Your task to perform on an android device: Open CNN.com Image 0: 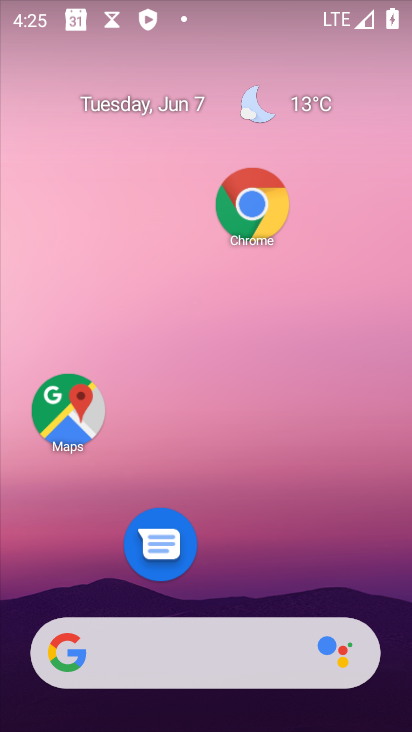
Step 0: click (251, 202)
Your task to perform on an android device: Open CNN.com Image 1: 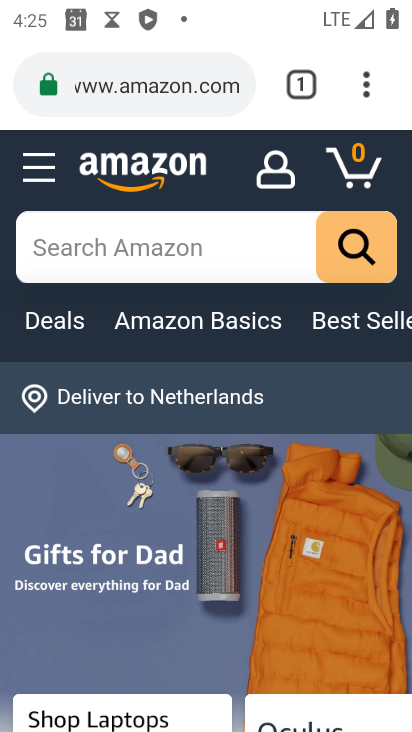
Step 1: click (296, 81)
Your task to perform on an android device: Open CNN.com Image 2: 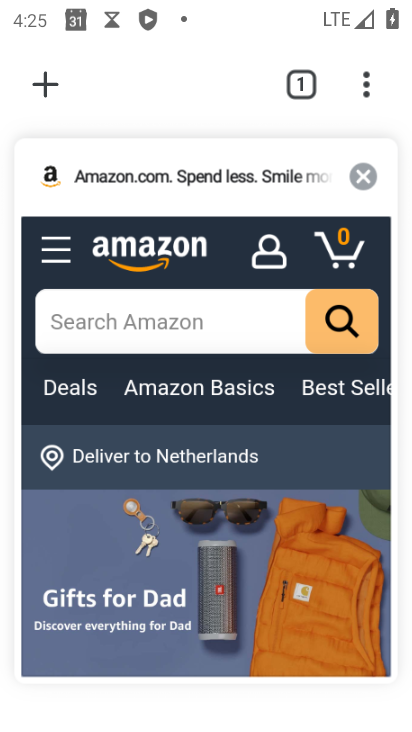
Step 2: click (365, 169)
Your task to perform on an android device: Open CNN.com Image 3: 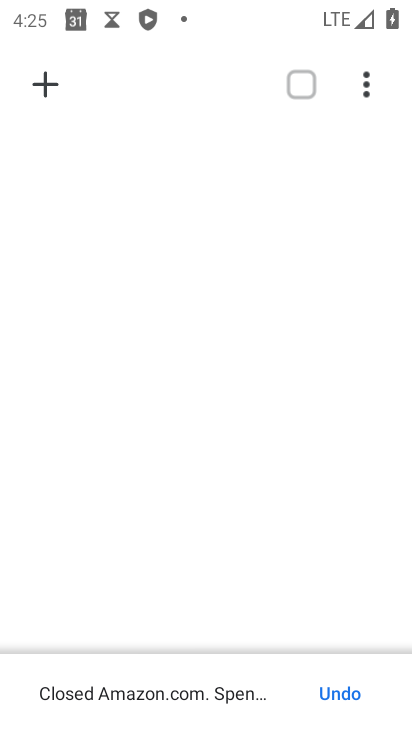
Step 3: click (55, 89)
Your task to perform on an android device: Open CNN.com Image 4: 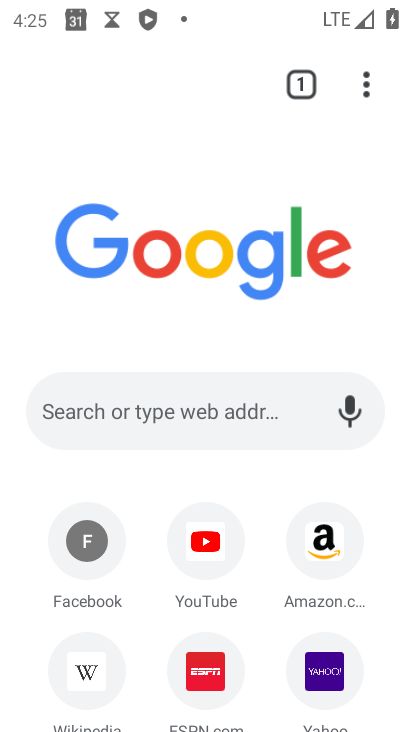
Step 4: drag from (266, 590) to (285, 351)
Your task to perform on an android device: Open CNN.com Image 5: 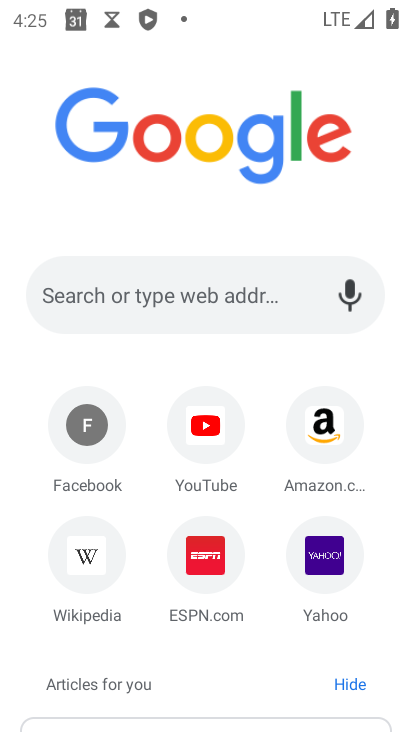
Step 5: drag from (296, 232) to (303, 181)
Your task to perform on an android device: Open CNN.com Image 6: 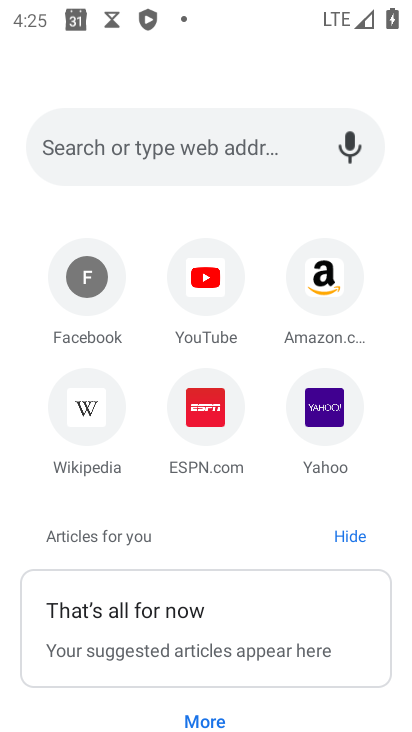
Step 6: click (172, 143)
Your task to perform on an android device: Open CNN.com Image 7: 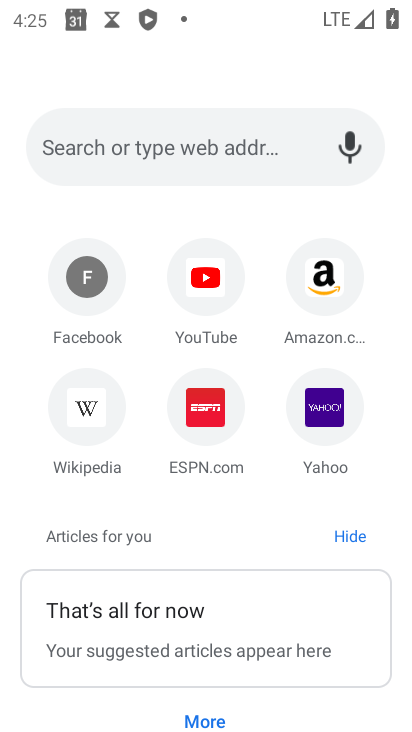
Step 7: type "cnn.com"
Your task to perform on an android device: Open CNN.com Image 8: 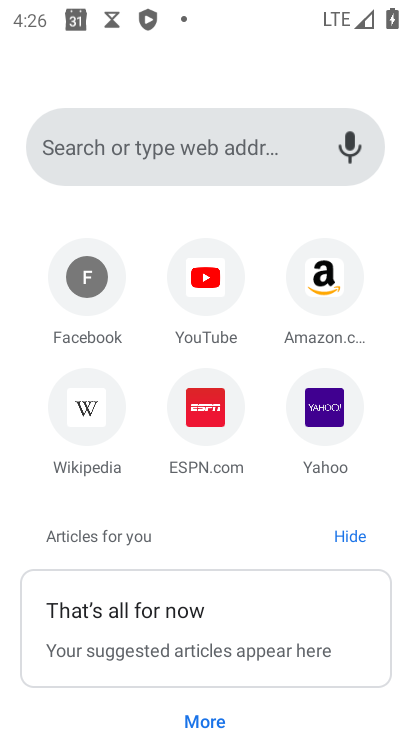
Step 8: click (104, 140)
Your task to perform on an android device: Open CNN.com Image 9: 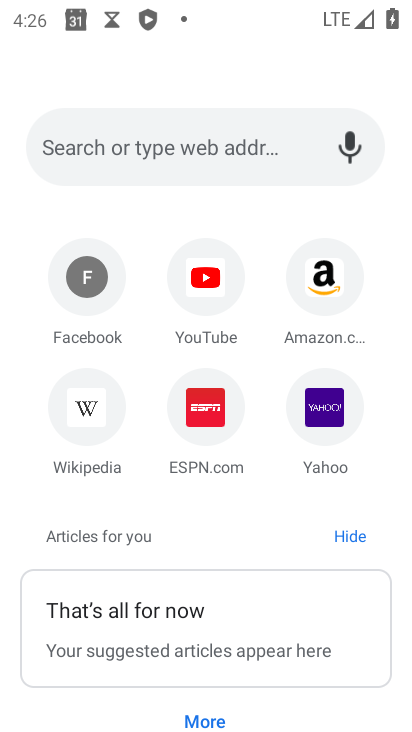
Step 9: click (112, 148)
Your task to perform on an android device: Open CNN.com Image 10: 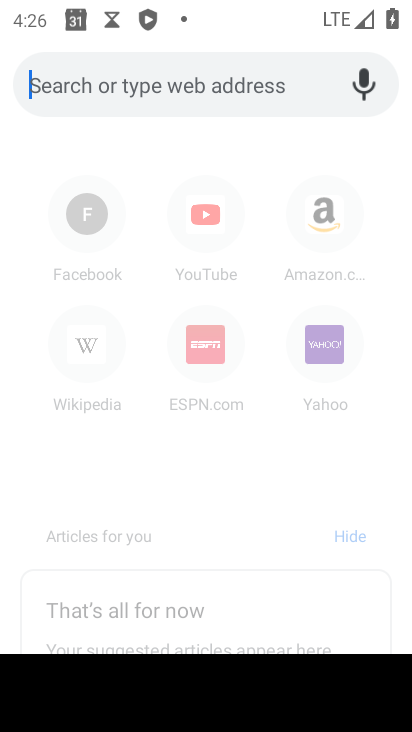
Step 10: type "cnn.com"
Your task to perform on an android device: Open CNN.com Image 11: 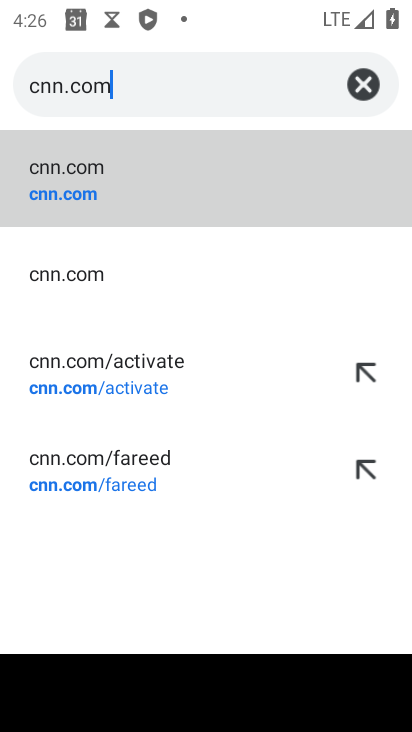
Step 11: click (132, 184)
Your task to perform on an android device: Open CNN.com Image 12: 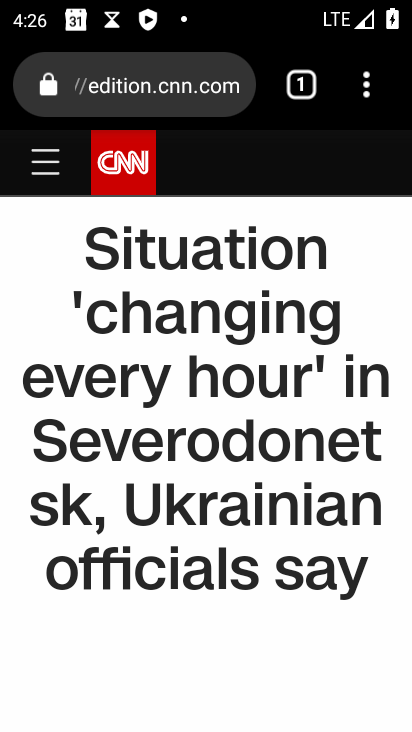
Step 12: drag from (195, 651) to (267, 263)
Your task to perform on an android device: Open CNN.com Image 13: 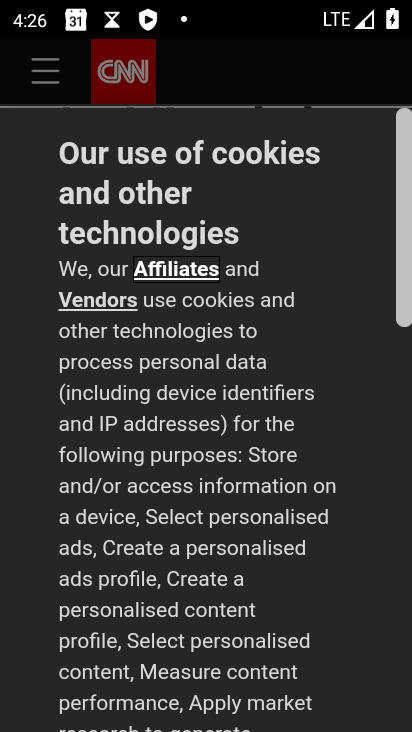
Step 13: drag from (255, 649) to (304, 355)
Your task to perform on an android device: Open CNN.com Image 14: 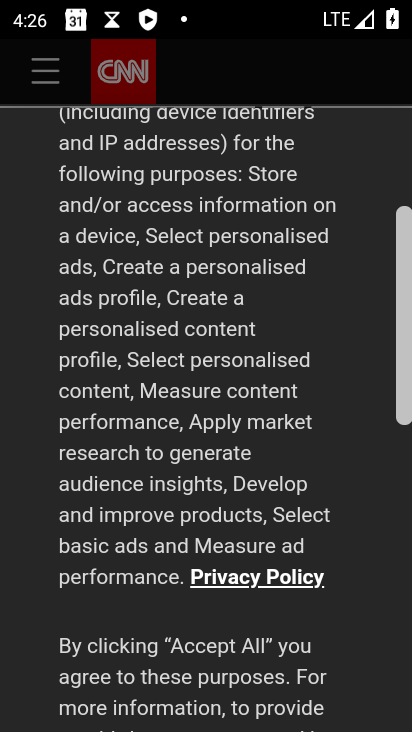
Step 14: drag from (219, 678) to (283, 338)
Your task to perform on an android device: Open CNN.com Image 15: 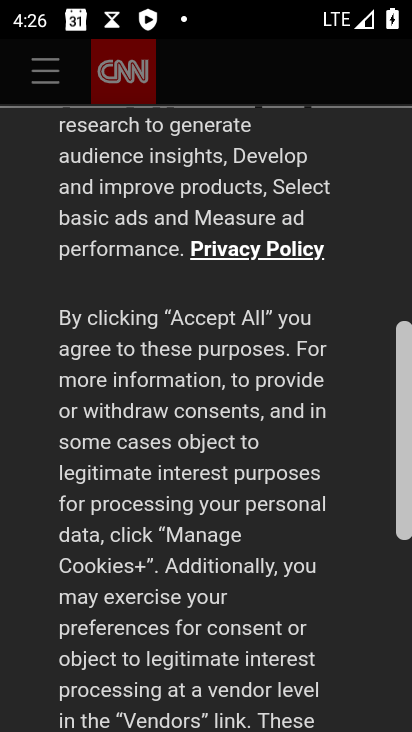
Step 15: drag from (215, 656) to (277, 301)
Your task to perform on an android device: Open CNN.com Image 16: 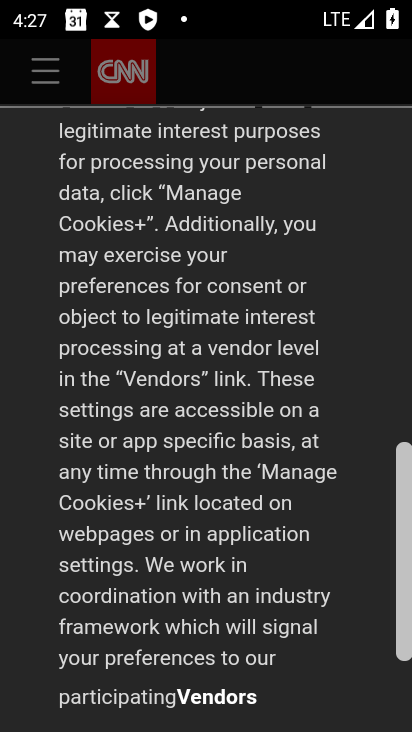
Step 16: drag from (187, 629) to (227, 266)
Your task to perform on an android device: Open CNN.com Image 17: 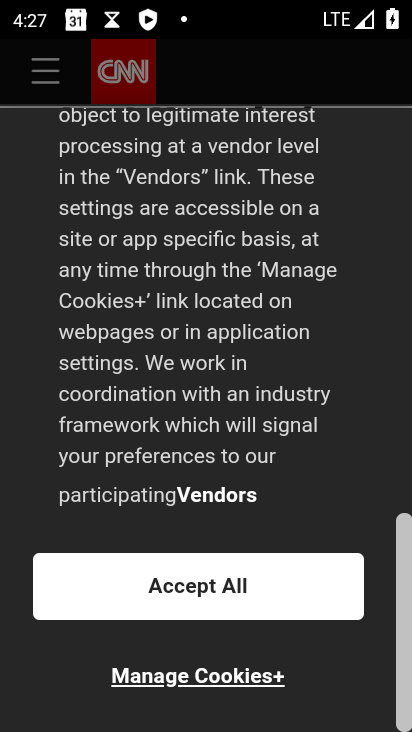
Step 17: click (229, 590)
Your task to perform on an android device: Open CNN.com Image 18: 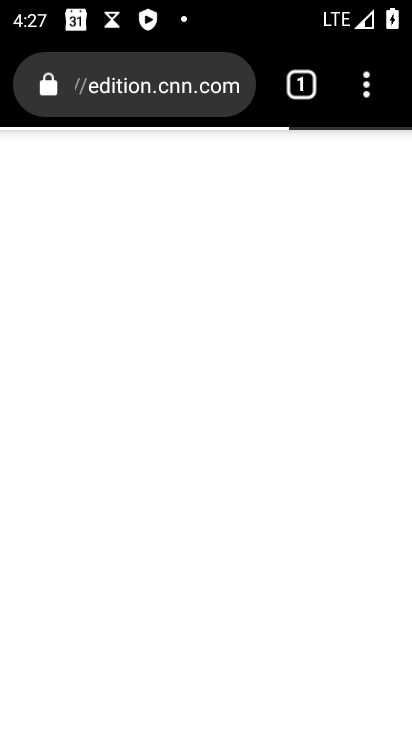
Step 18: task complete